Your task to perform on an android device: Is it going to rain today? Image 0: 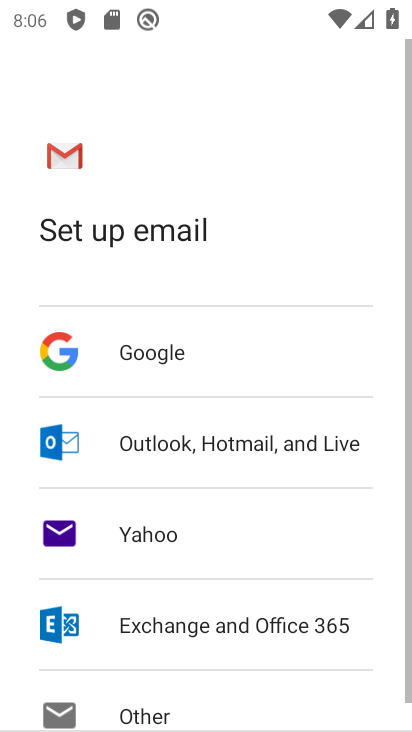
Step 0: press home button
Your task to perform on an android device: Is it going to rain today? Image 1: 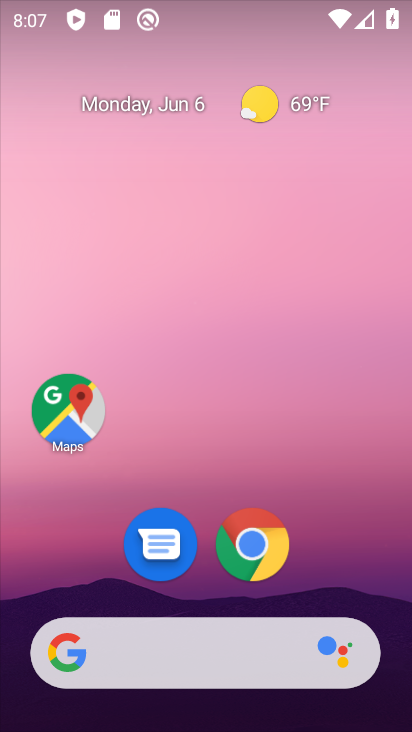
Step 1: click (261, 543)
Your task to perform on an android device: Is it going to rain today? Image 2: 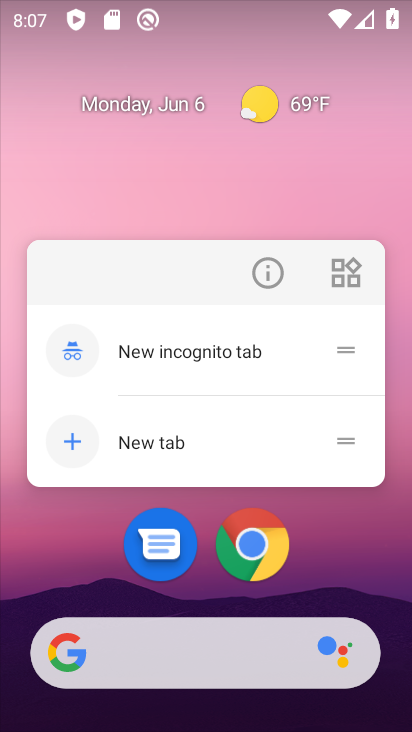
Step 2: click (276, 265)
Your task to perform on an android device: Is it going to rain today? Image 3: 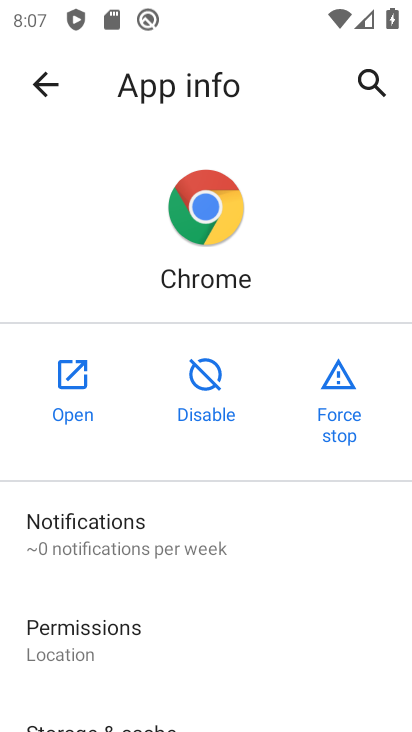
Step 3: click (87, 386)
Your task to perform on an android device: Is it going to rain today? Image 4: 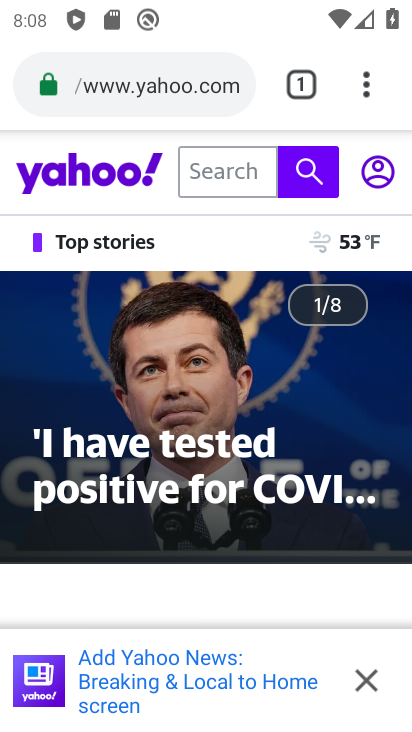
Step 4: click (156, 88)
Your task to perform on an android device: Is it going to rain today? Image 5: 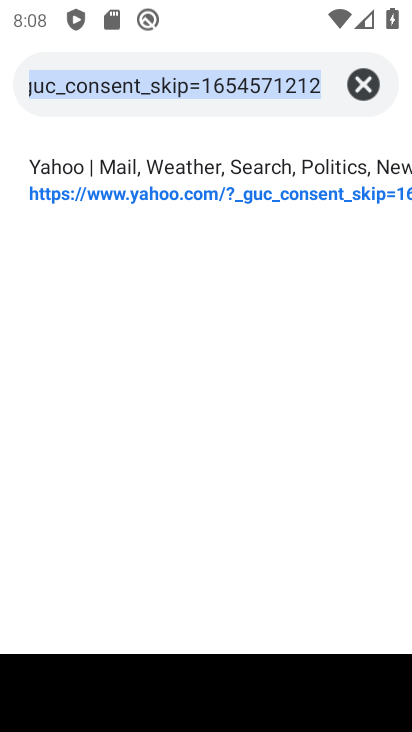
Step 5: type "Is it going to rain today?"
Your task to perform on an android device: Is it going to rain today? Image 6: 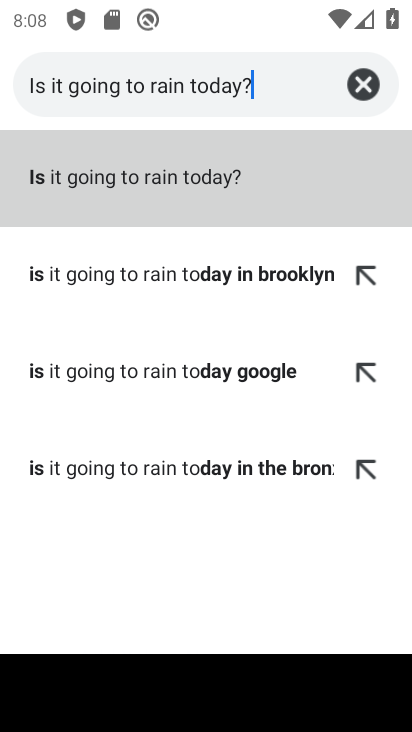
Step 6: click (294, 187)
Your task to perform on an android device: Is it going to rain today? Image 7: 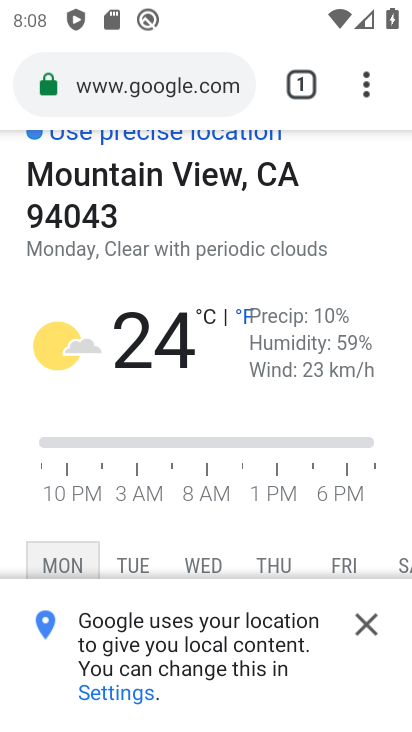
Step 7: task complete